Your task to perform on an android device: Go to battery settings Image 0: 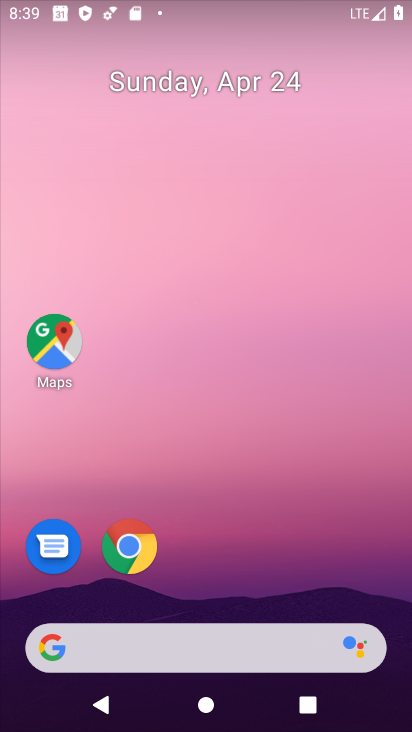
Step 0: drag from (243, 593) to (180, 19)
Your task to perform on an android device: Go to battery settings Image 1: 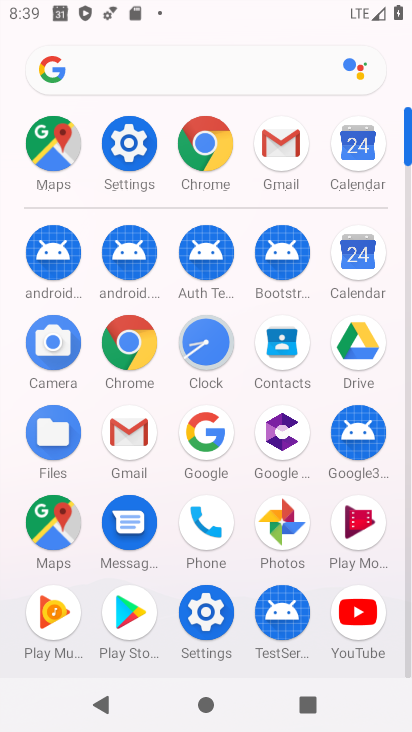
Step 1: click (134, 139)
Your task to perform on an android device: Go to battery settings Image 2: 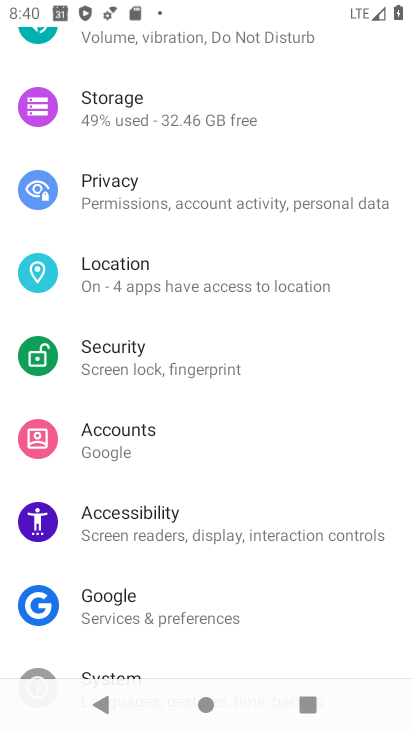
Step 2: drag from (144, 558) to (128, 364)
Your task to perform on an android device: Go to battery settings Image 3: 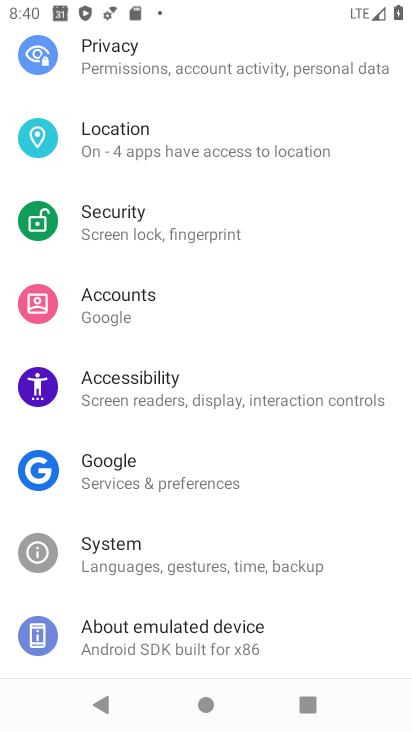
Step 3: drag from (193, 291) to (280, 639)
Your task to perform on an android device: Go to battery settings Image 4: 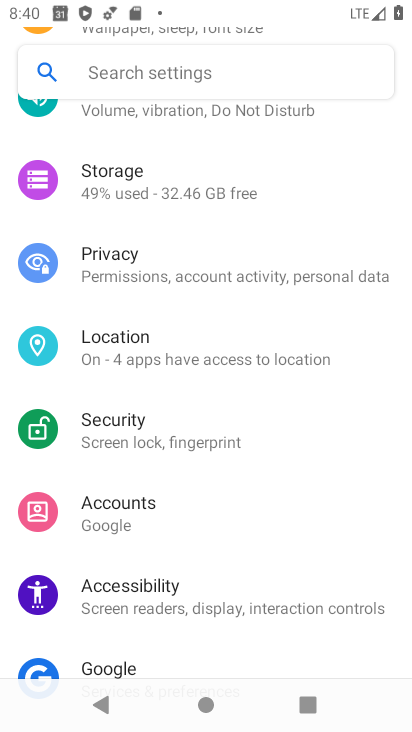
Step 4: drag from (250, 208) to (290, 672)
Your task to perform on an android device: Go to battery settings Image 5: 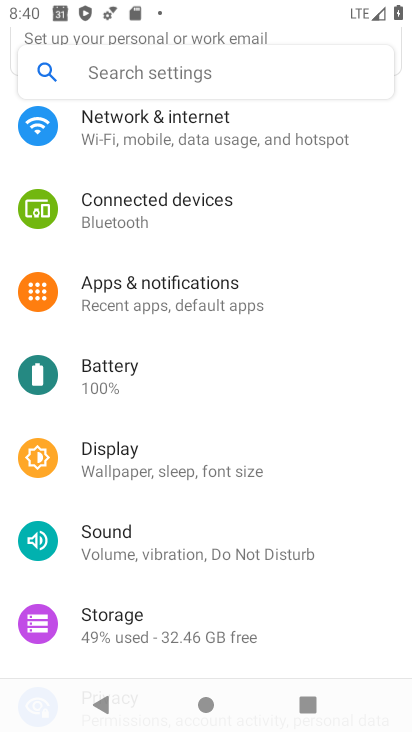
Step 5: click (205, 151)
Your task to perform on an android device: Go to battery settings Image 6: 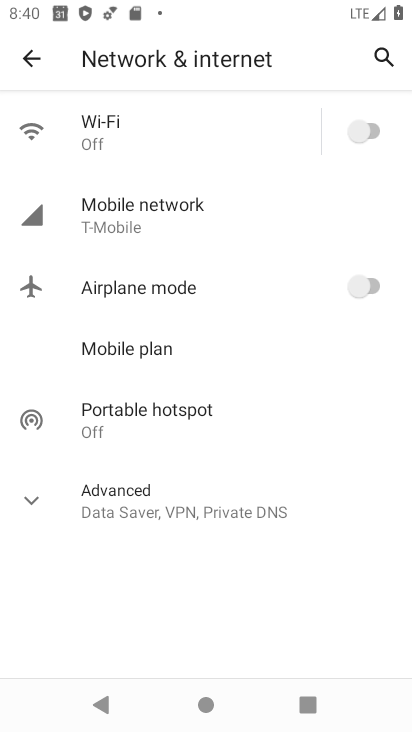
Step 6: task complete